Your task to perform on an android device: turn on airplane mode Image 0: 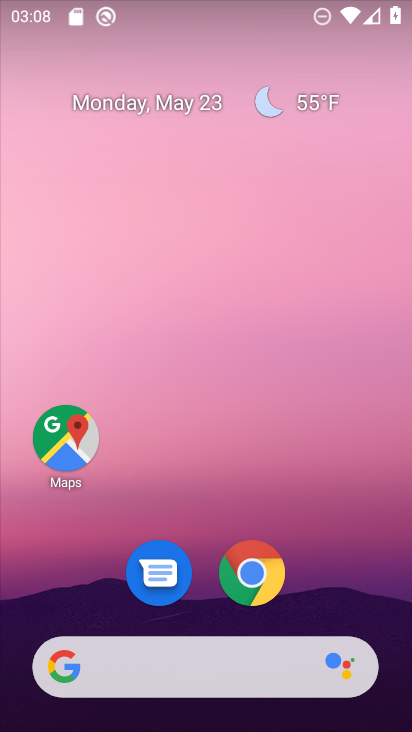
Step 0: drag from (349, 604) to (268, 23)
Your task to perform on an android device: turn on airplane mode Image 1: 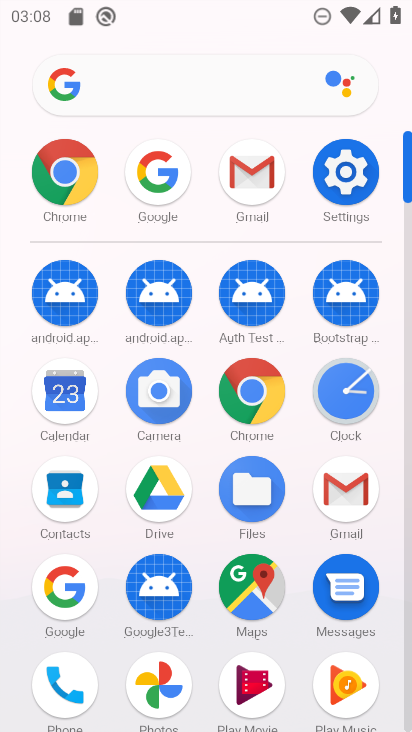
Step 1: click (350, 179)
Your task to perform on an android device: turn on airplane mode Image 2: 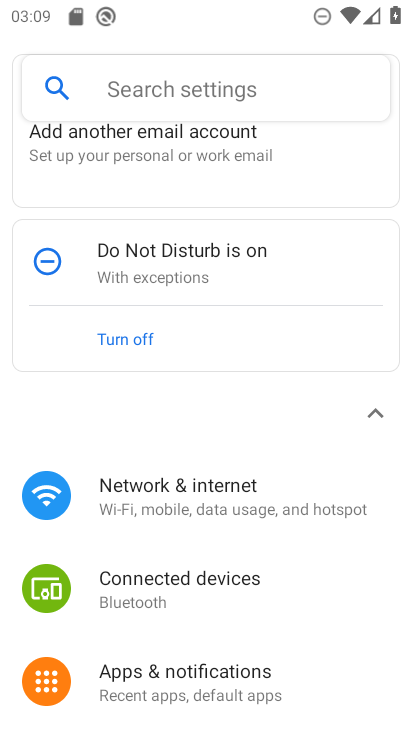
Step 2: click (207, 504)
Your task to perform on an android device: turn on airplane mode Image 3: 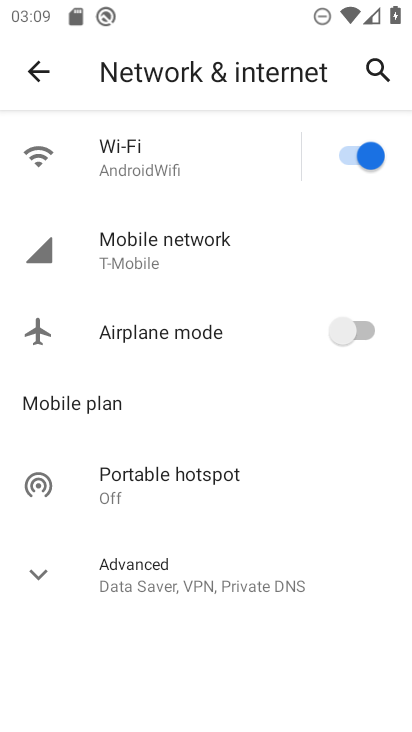
Step 3: click (366, 330)
Your task to perform on an android device: turn on airplane mode Image 4: 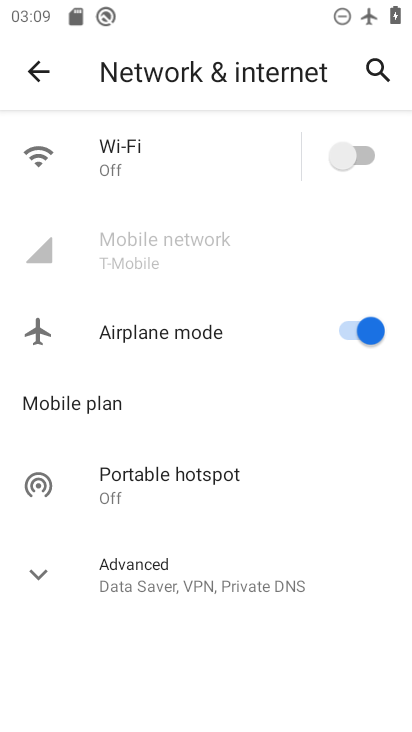
Step 4: task complete